Your task to perform on an android device: Open Chrome and go to settings Image 0: 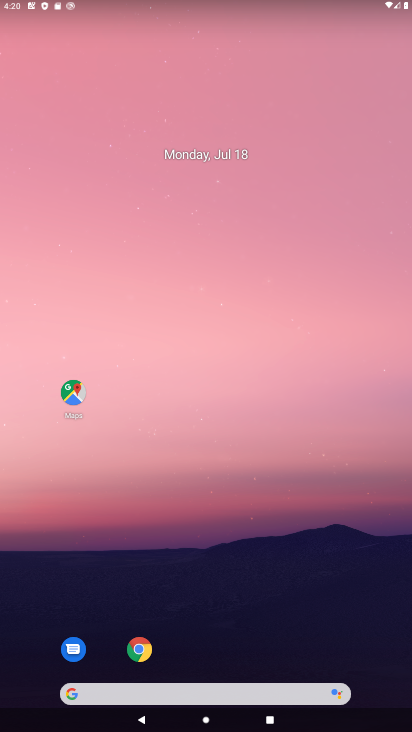
Step 0: click (133, 651)
Your task to perform on an android device: Open Chrome and go to settings Image 1: 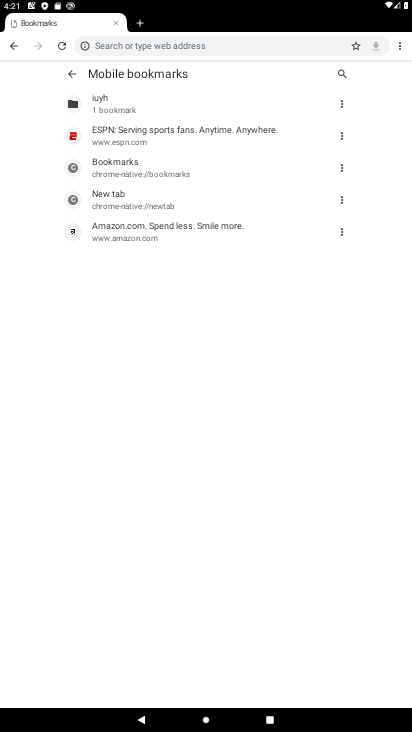
Step 1: click (399, 47)
Your task to perform on an android device: Open Chrome and go to settings Image 2: 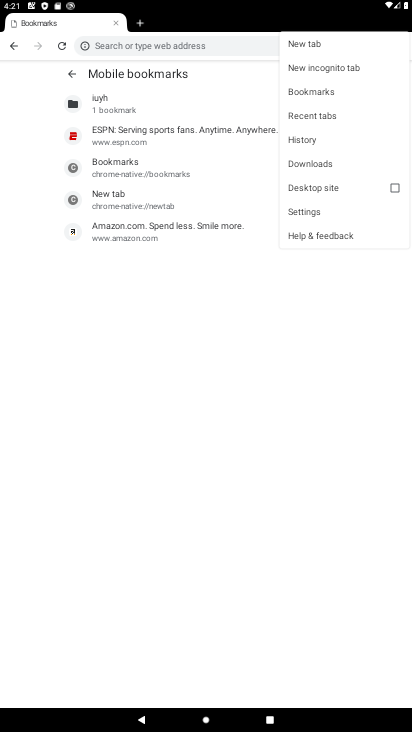
Step 2: click (309, 219)
Your task to perform on an android device: Open Chrome and go to settings Image 3: 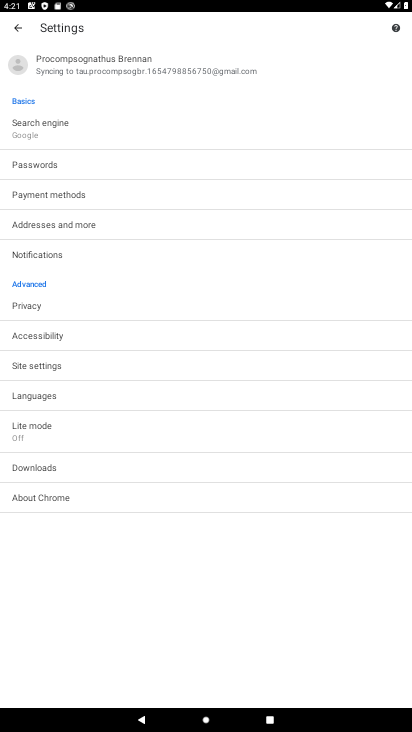
Step 3: task complete